Your task to perform on an android device: Do I have any events tomorrow? Image 0: 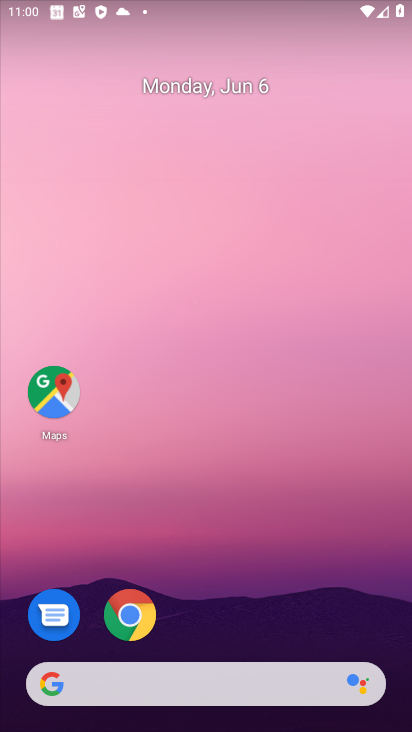
Step 0: drag from (259, 655) to (235, 50)
Your task to perform on an android device: Do I have any events tomorrow? Image 1: 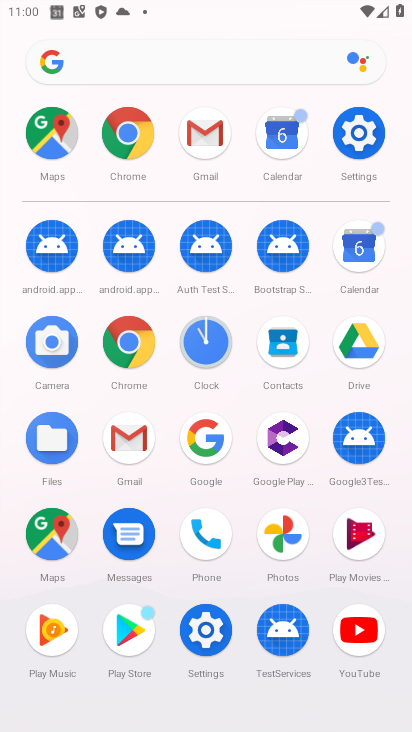
Step 1: click (299, 136)
Your task to perform on an android device: Do I have any events tomorrow? Image 2: 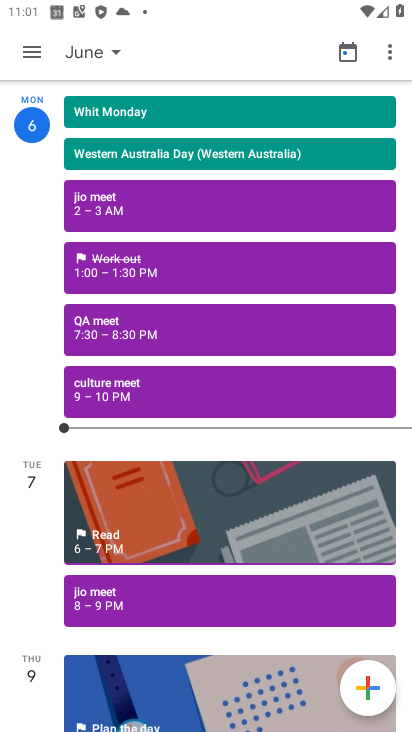
Step 2: task complete